Your task to perform on an android device: clear history in the chrome app Image 0: 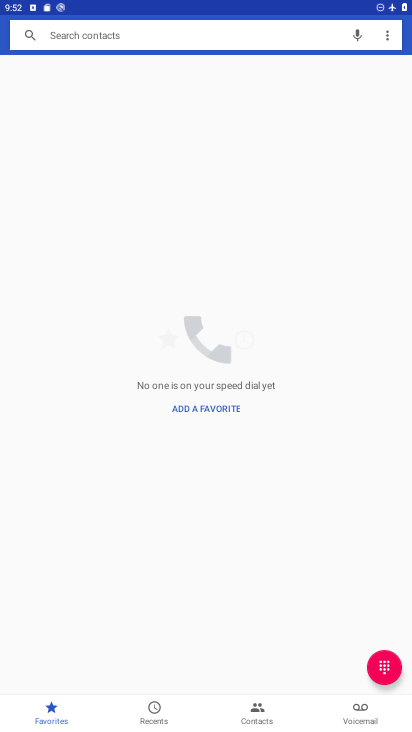
Step 0: press home button
Your task to perform on an android device: clear history in the chrome app Image 1: 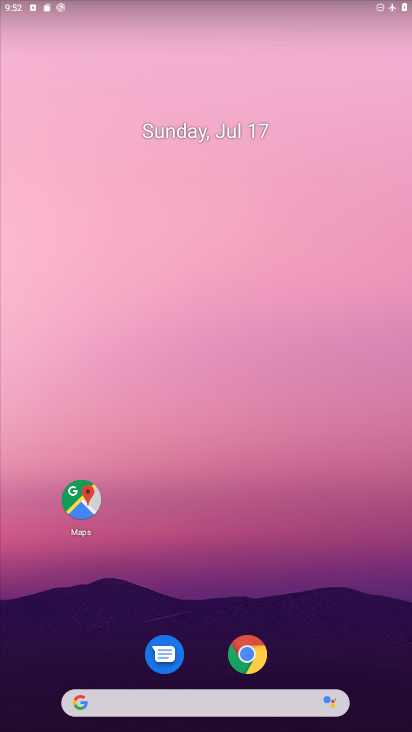
Step 1: click (239, 647)
Your task to perform on an android device: clear history in the chrome app Image 2: 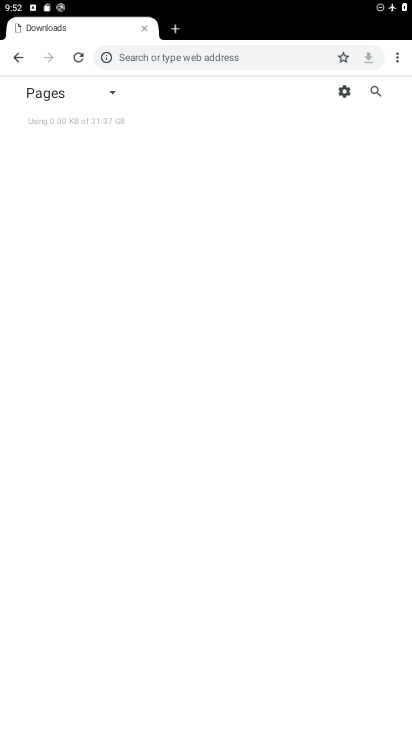
Step 2: click (394, 58)
Your task to perform on an android device: clear history in the chrome app Image 3: 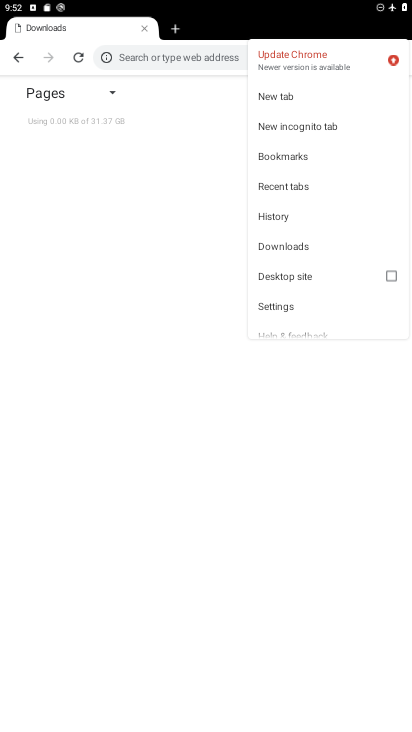
Step 3: click (278, 219)
Your task to perform on an android device: clear history in the chrome app Image 4: 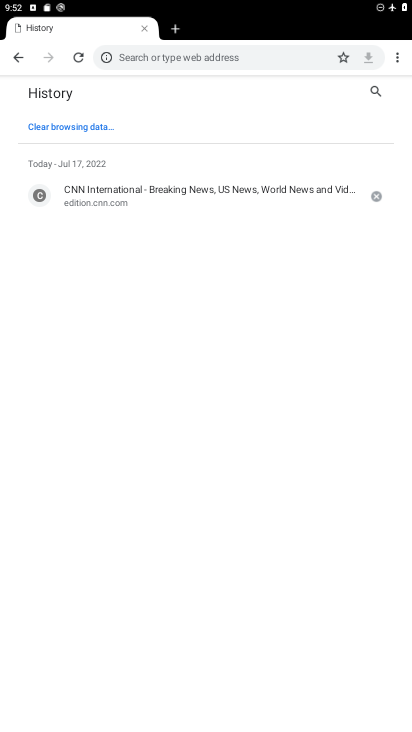
Step 4: click (49, 130)
Your task to perform on an android device: clear history in the chrome app Image 5: 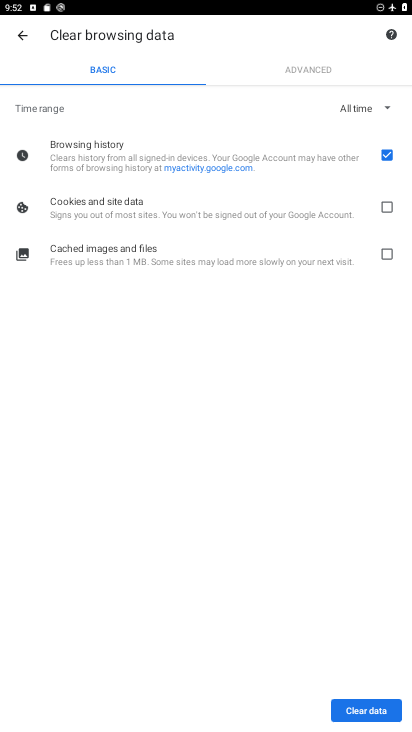
Step 5: click (386, 709)
Your task to perform on an android device: clear history in the chrome app Image 6: 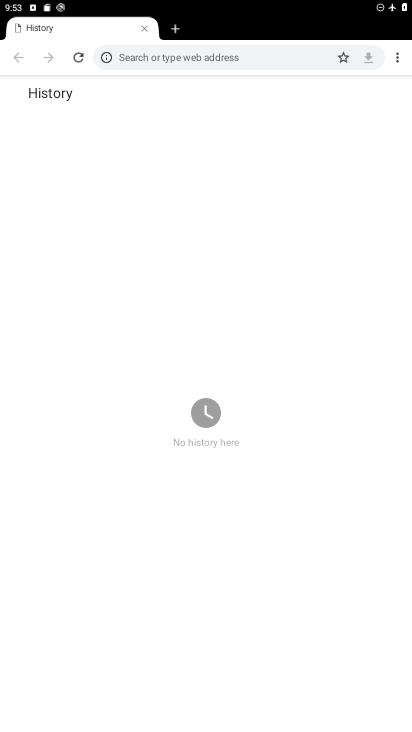
Step 6: task complete